Your task to perform on an android device: toggle sleep mode Image 0: 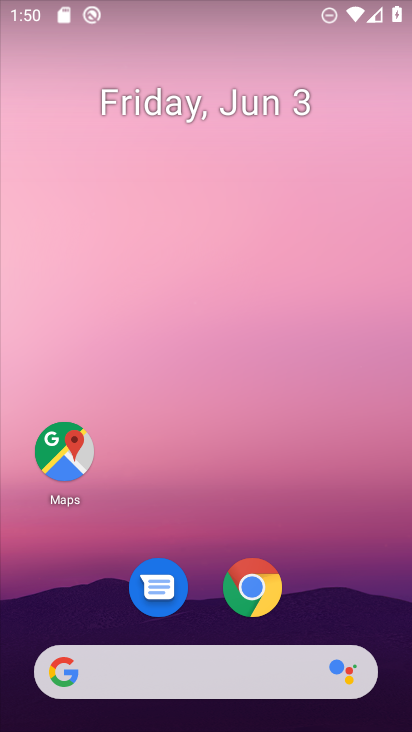
Step 0: drag from (330, 582) to (308, 0)
Your task to perform on an android device: toggle sleep mode Image 1: 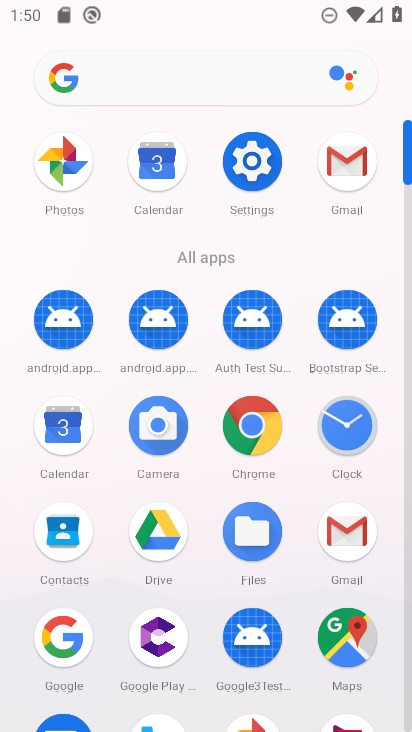
Step 1: click (257, 159)
Your task to perform on an android device: toggle sleep mode Image 2: 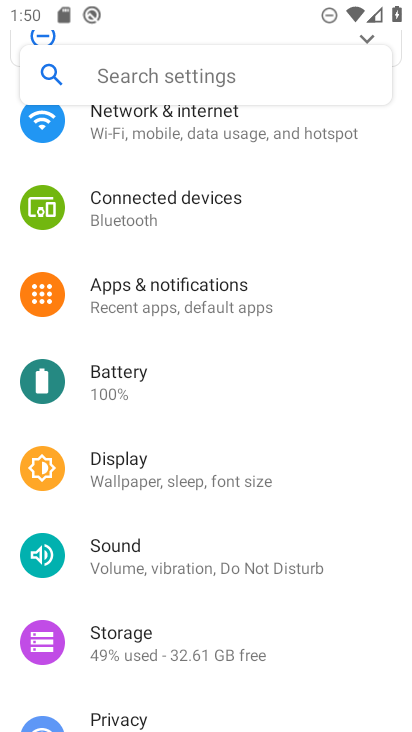
Step 2: click (181, 488)
Your task to perform on an android device: toggle sleep mode Image 3: 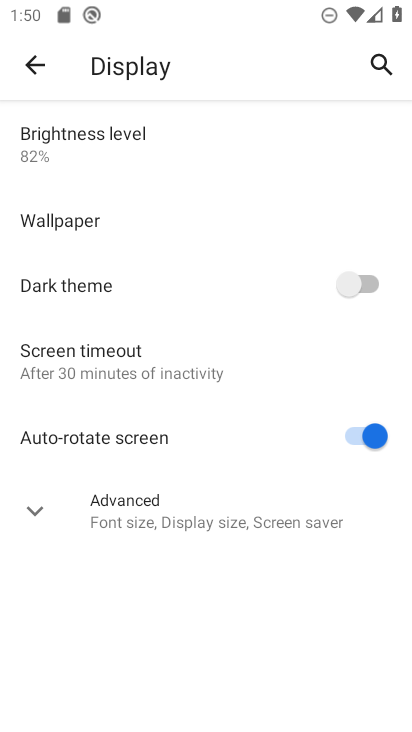
Step 3: click (179, 513)
Your task to perform on an android device: toggle sleep mode Image 4: 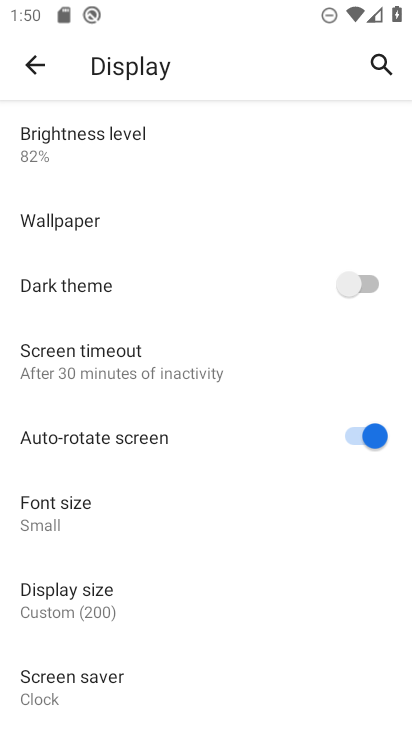
Step 4: task complete